Your task to perform on an android device: read, delete, or share a saved page in the chrome app Image 0: 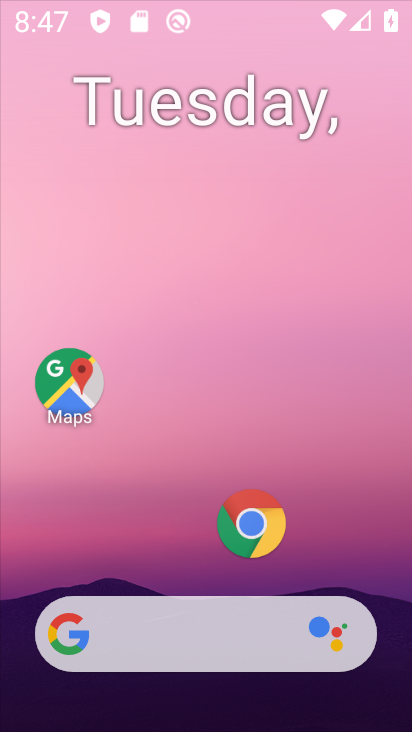
Step 0: click (244, 534)
Your task to perform on an android device: read, delete, or share a saved page in the chrome app Image 1: 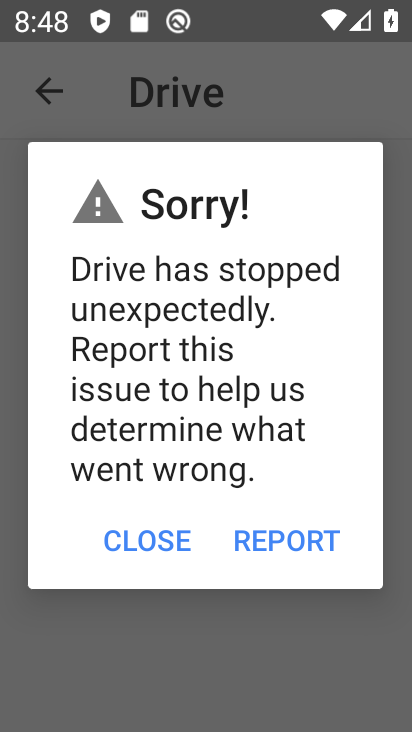
Step 1: press home button
Your task to perform on an android device: read, delete, or share a saved page in the chrome app Image 2: 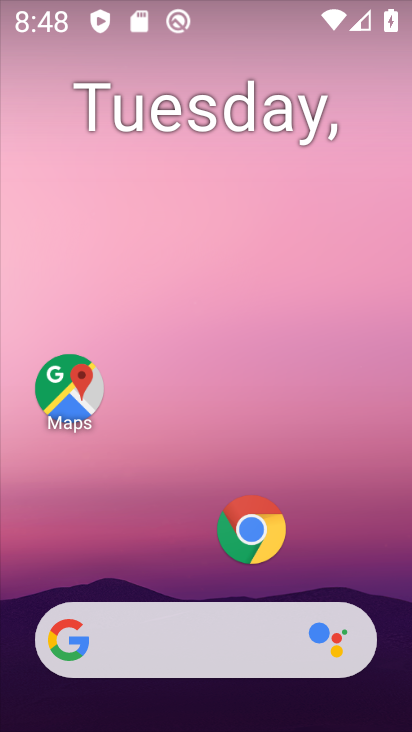
Step 2: click (250, 525)
Your task to perform on an android device: read, delete, or share a saved page in the chrome app Image 3: 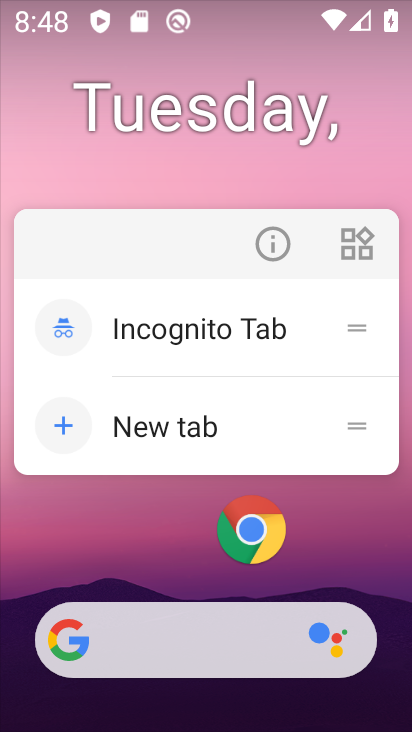
Step 3: click (250, 525)
Your task to perform on an android device: read, delete, or share a saved page in the chrome app Image 4: 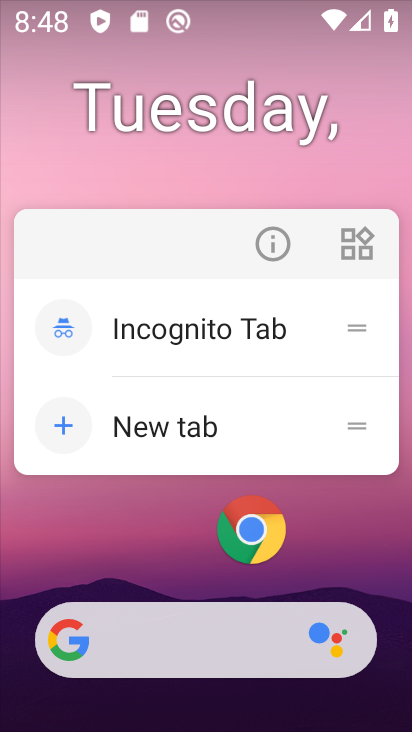
Step 4: click (250, 525)
Your task to perform on an android device: read, delete, or share a saved page in the chrome app Image 5: 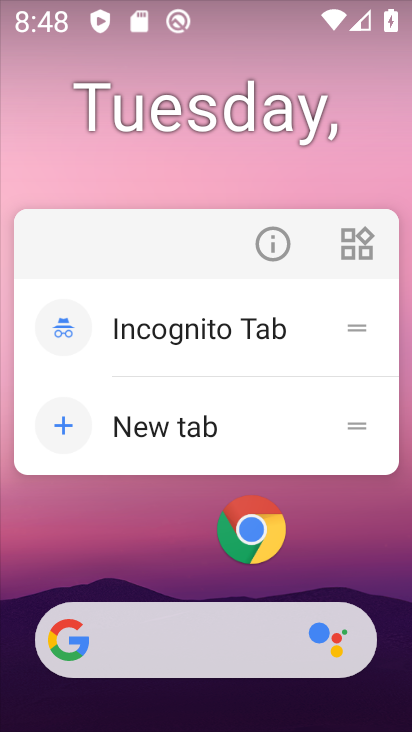
Step 5: click (302, 536)
Your task to perform on an android device: read, delete, or share a saved page in the chrome app Image 6: 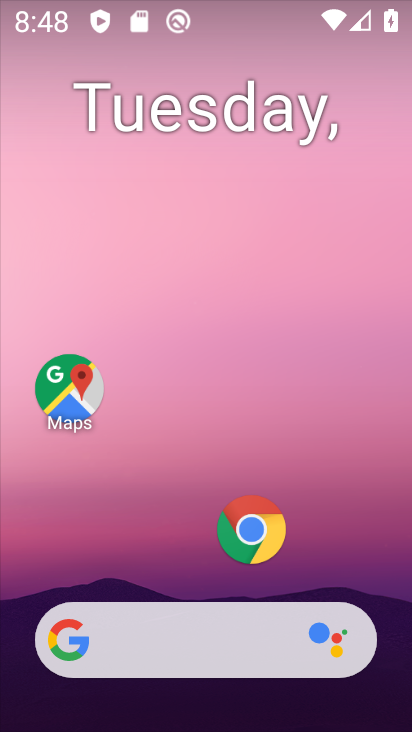
Step 6: drag from (326, 570) to (332, 119)
Your task to perform on an android device: read, delete, or share a saved page in the chrome app Image 7: 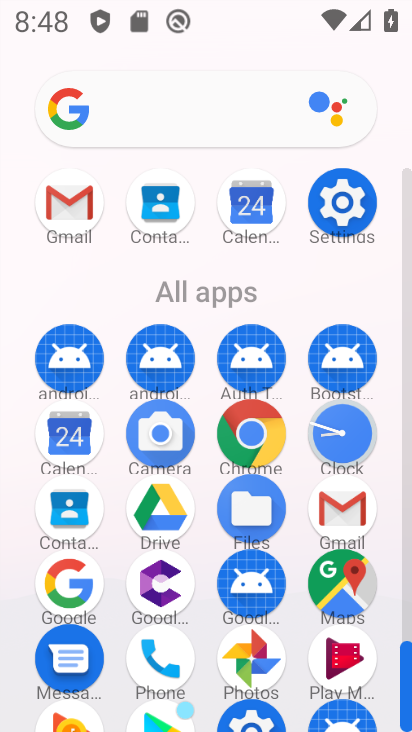
Step 7: click (257, 424)
Your task to perform on an android device: read, delete, or share a saved page in the chrome app Image 8: 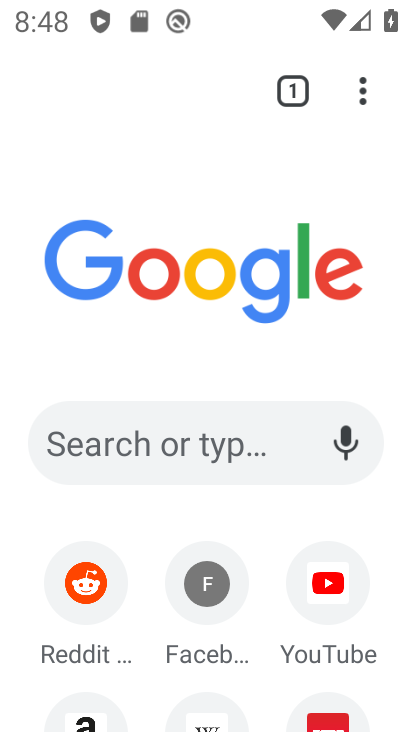
Step 8: click (362, 95)
Your task to perform on an android device: read, delete, or share a saved page in the chrome app Image 9: 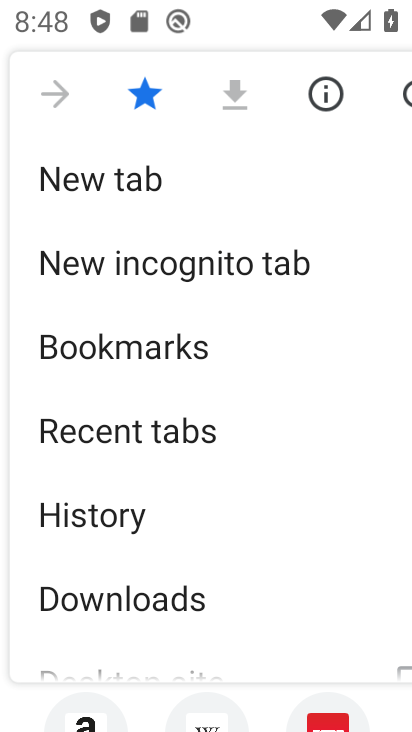
Step 9: click (215, 595)
Your task to perform on an android device: read, delete, or share a saved page in the chrome app Image 10: 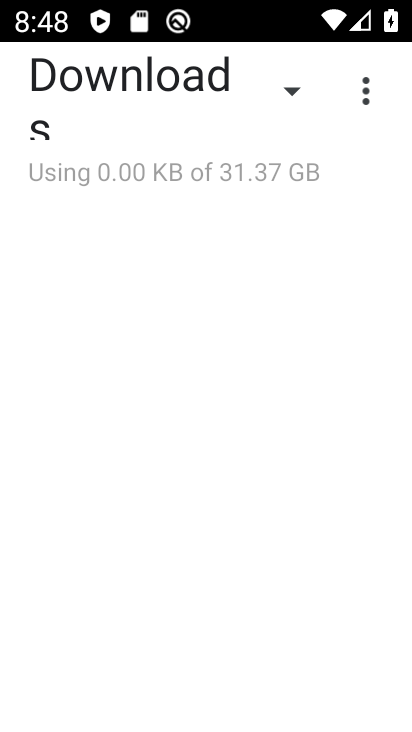
Step 10: task complete